Your task to perform on an android device: turn off priority inbox in the gmail app Image 0: 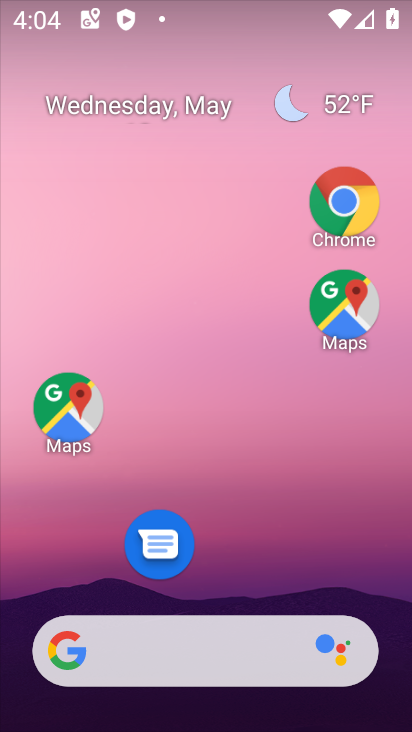
Step 0: drag from (300, 520) to (266, 250)
Your task to perform on an android device: turn off priority inbox in the gmail app Image 1: 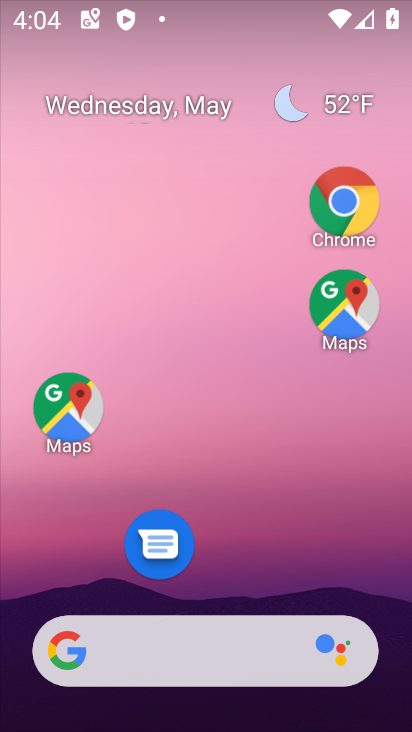
Step 1: drag from (251, 475) to (265, 2)
Your task to perform on an android device: turn off priority inbox in the gmail app Image 2: 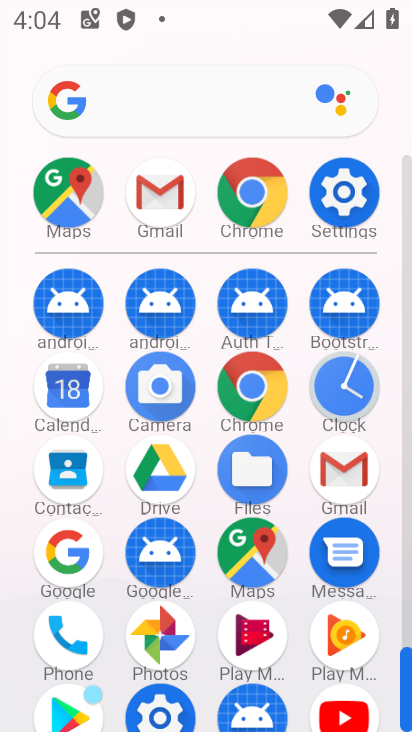
Step 2: click (165, 194)
Your task to perform on an android device: turn off priority inbox in the gmail app Image 3: 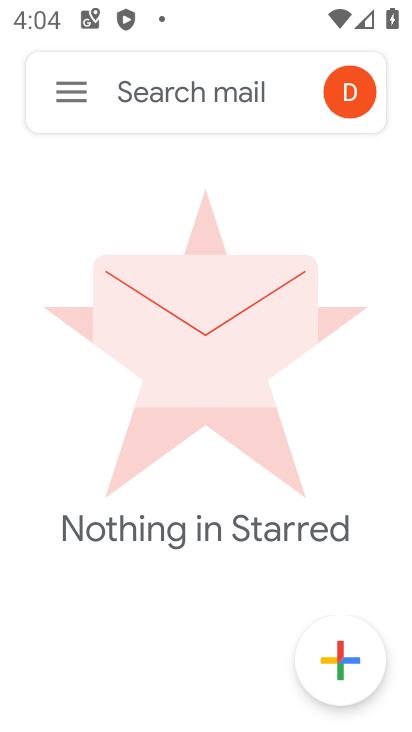
Step 3: click (78, 85)
Your task to perform on an android device: turn off priority inbox in the gmail app Image 4: 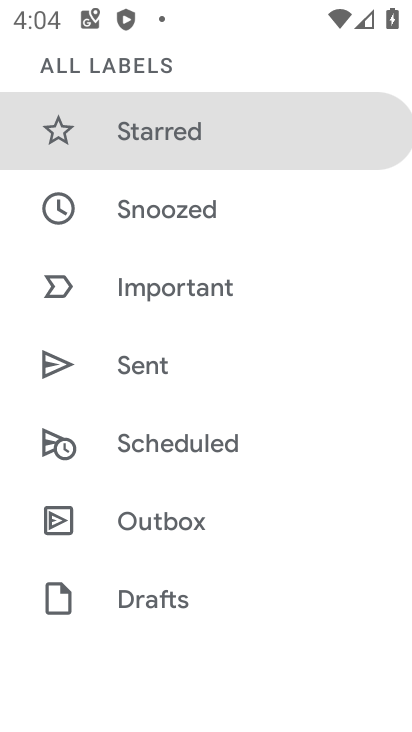
Step 4: drag from (241, 598) to (157, 270)
Your task to perform on an android device: turn off priority inbox in the gmail app Image 5: 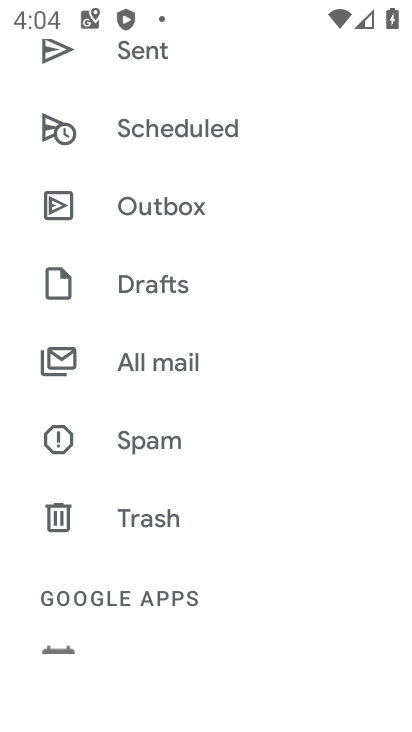
Step 5: drag from (196, 496) to (121, 230)
Your task to perform on an android device: turn off priority inbox in the gmail app Image 6: 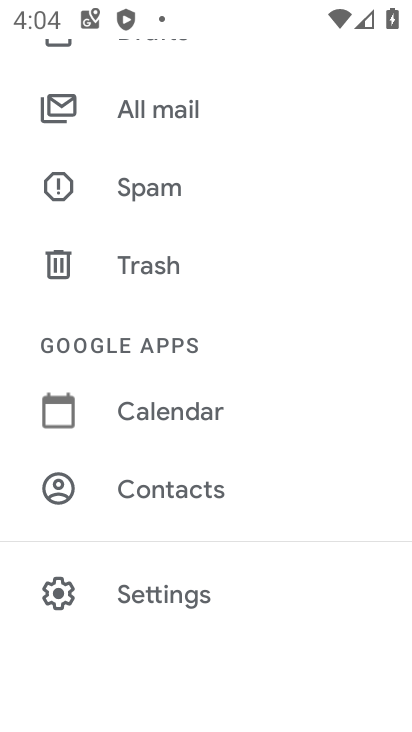
Step 6: click (160, 593)
Your task to perform on an android device: turn off priority inbox in the gmail app Image 7: 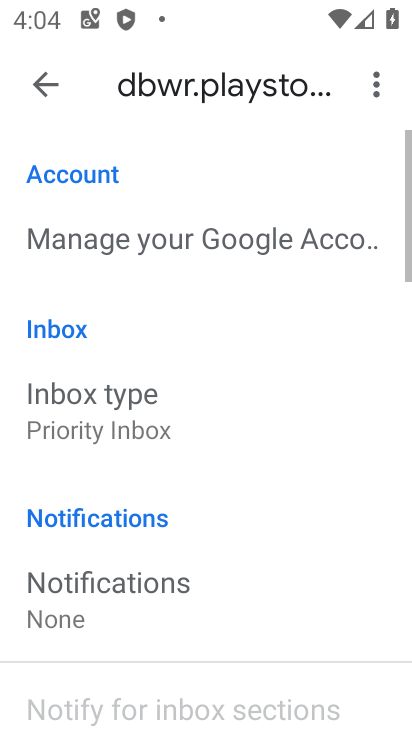
Step 7: click (168, 414)
Your task to perform on an android device: turn off priority inbox in the gmail app Image 8: 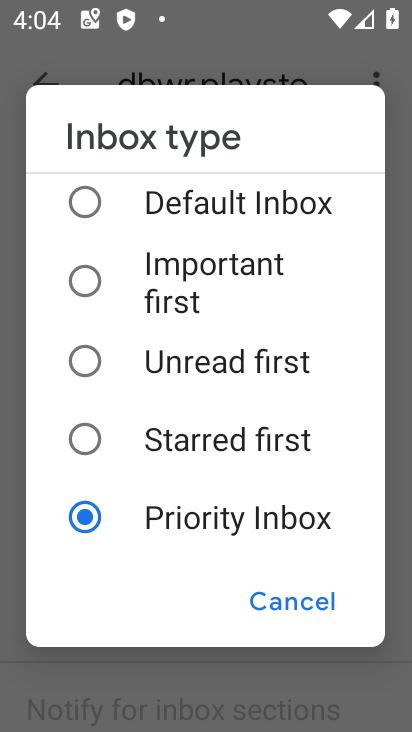
Step 8: click (86, 191)
Your task to perform on an android device: turn off priority inbox in the gmail app Image 9: 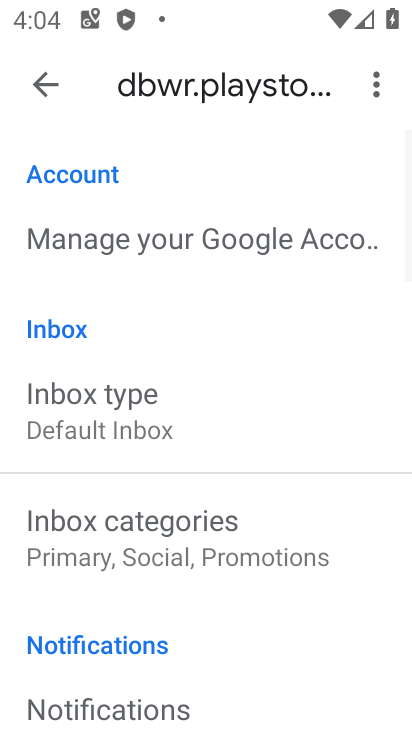
Step 9: task complete